Your task to perform on an android device: turn on airplane mode Image 0: 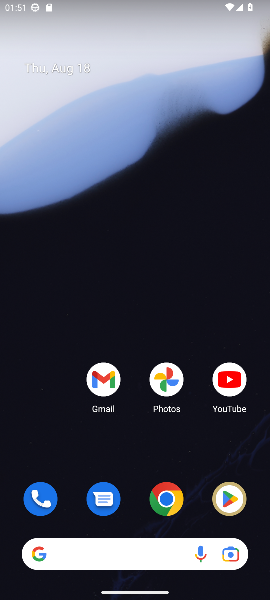
Step 0: drag from (139, 520) to (104, 52)
Your task to perform on an android device: turn on airplane mode Image 1: 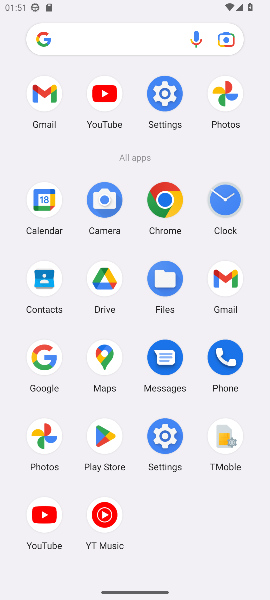
Step 1: click (163, 96)
Your task to perform on an android device: turn on airplane mode Image 2: 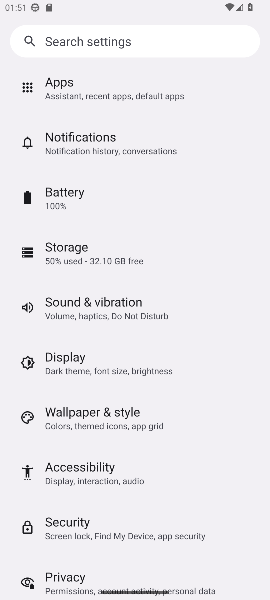
Step 2: drag from (142, 116) to (126, 327)
Your task to perform on an android device: turn on airplane mode Image 3: 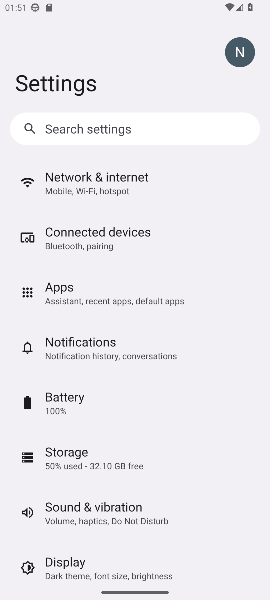
Step 3: click (96, 175)
Your task to perform on an android device: turn on airplane mode Image 4: 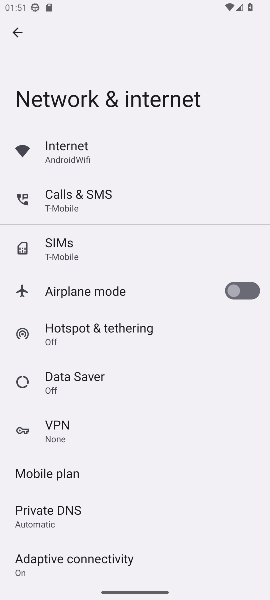
Step 4: click (235, 289)
Your task to perform on an android device: turn on airplane mode Image 5: 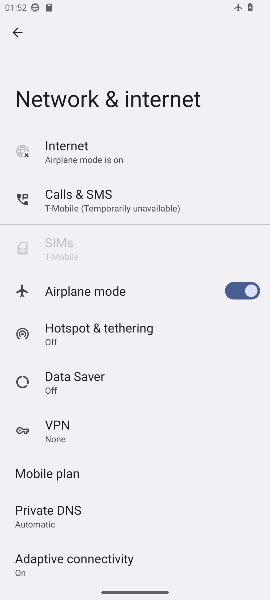
Step 5: task complete